Your task to perform on an android device: turn vacation reply on in the gmail app Image 0: 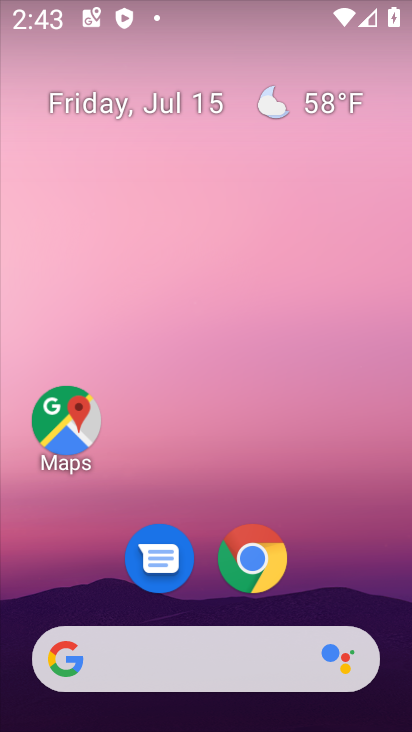
Step 0: drag from (383, 584) to (394, 154)
Your task to perform on an android device: turn vacation reply on in the gmail app Image 1: 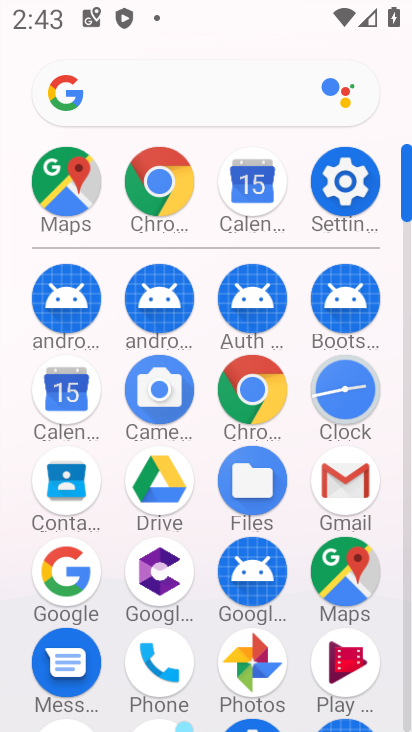
Step 1: click (353, 474)
Your task to perform on an android device: turn vacation reply on in the gmail app Image 2: 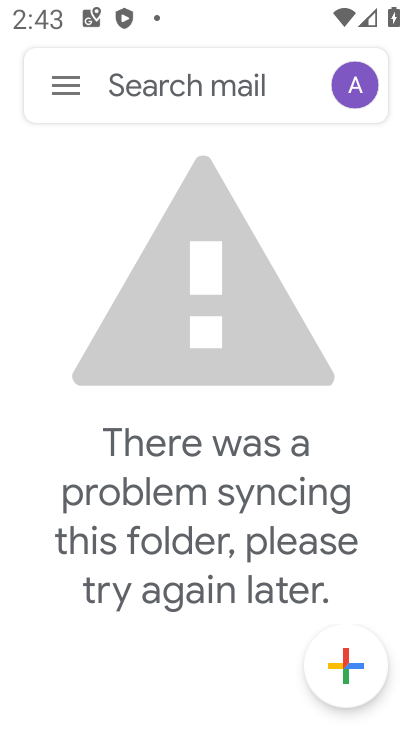
Step 2: click (69, 84)
Your task to perform on an android device: turn vacation reply on in the gmail app Image 3: 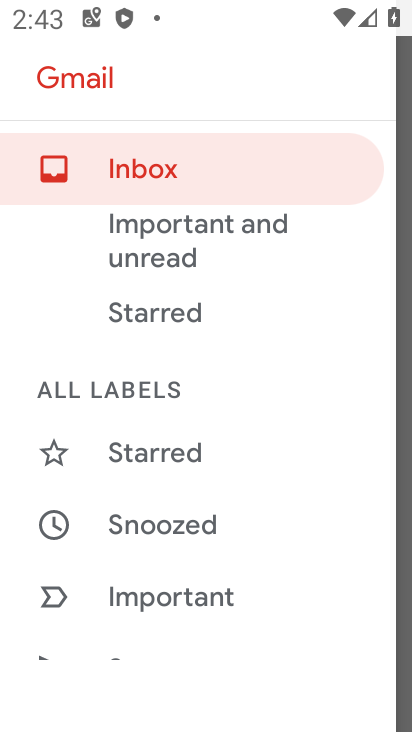
Step 3: drag from (293, 411) to (297, 340)
Your task to perform on an android device: turn vacation reply on in the gmail app Image 4: 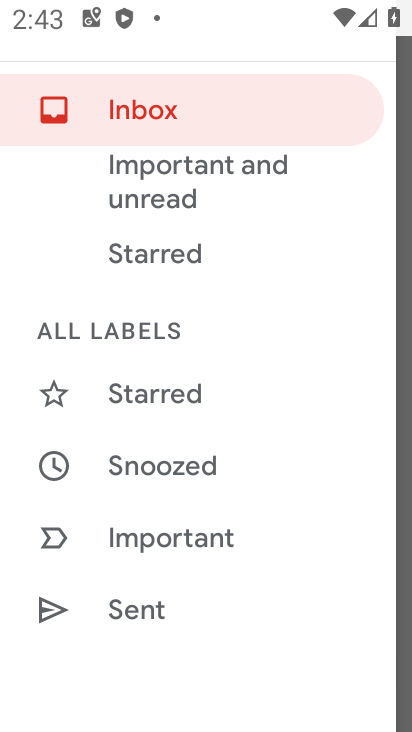
Step 4: drag from (330, 523) to (325, 414)
Your task to perform on an android device: turn vacation reply on in the gmail app Image 5: 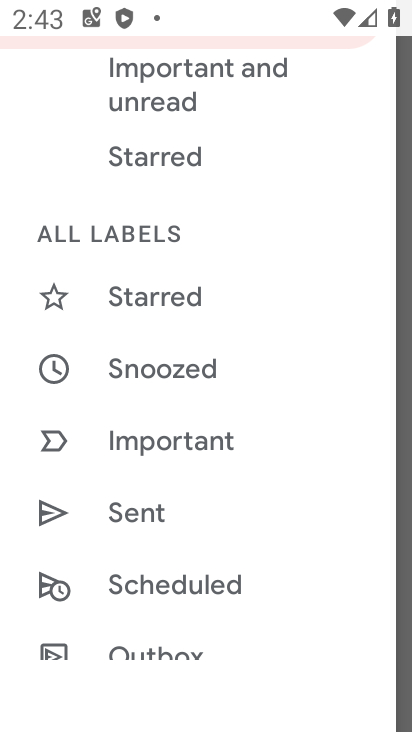
Step 5: drag from (327, 529) to (323, 454)
Your task to perform on an android device: turn vacation reply on in the gmail app Image 6: 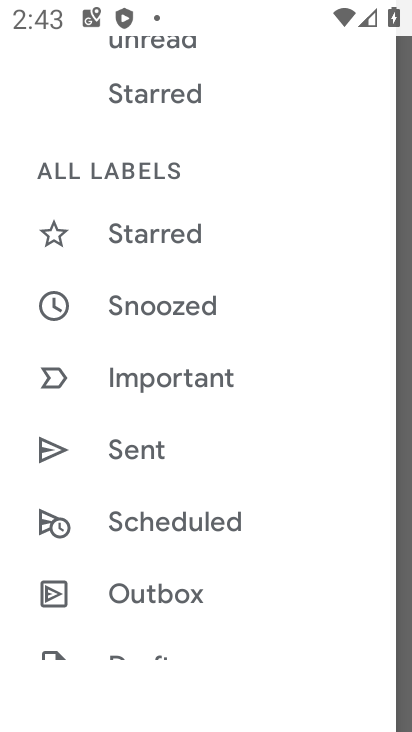
Step 6: drag from (319, 536) to (322, 460)
Your task to perform on an android device: turn vacation reply on in the gmail app Image 7: 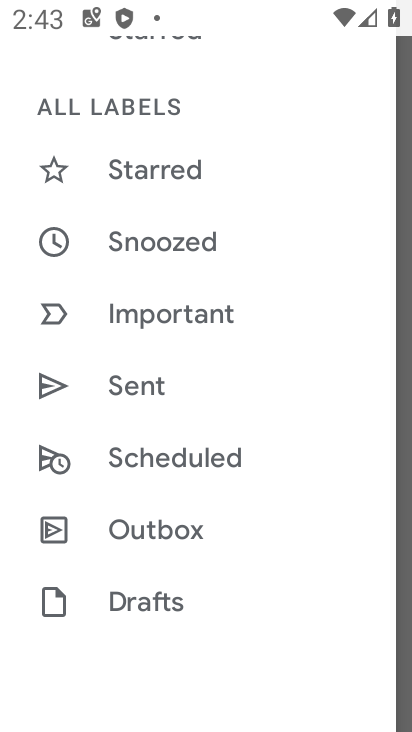
Step 7: drag from (309, 549) to (306, 455)
Your task to perform on an android device: turn vacation reply on in the gmail app Image 8: 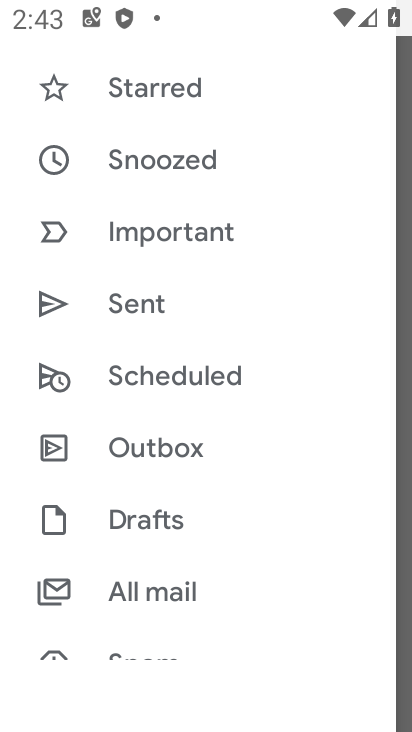
Step 8: drag from (286, 572) to (282, 457)
Your task to perform on an android device: turn vacation reply on in the gmail app Image 9: 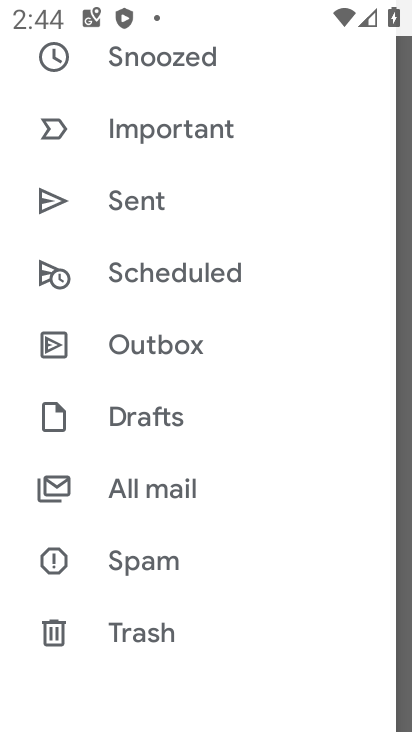
Step 9: drag from (290, 580) to (305, 183)
Your task to perform on an android device: turn vacation reply on in the gmail app Image 10: 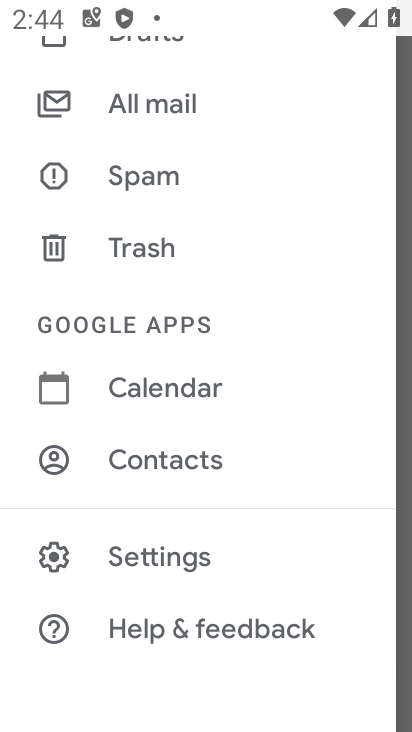
Step 10: click (273, 548)
Your task to perform on an android device: turn vacation reply on in the gmail app Image 11: 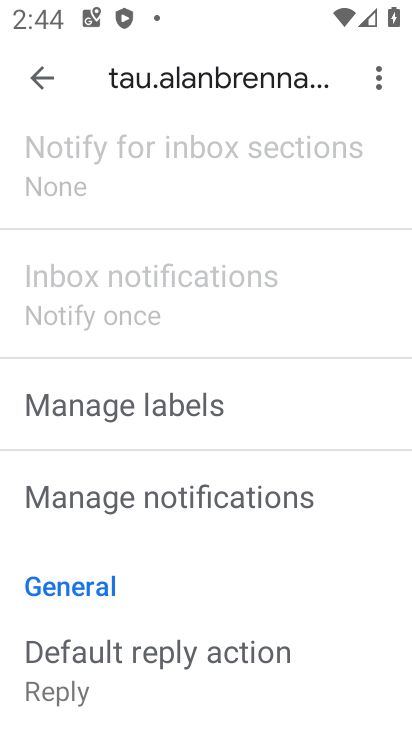
Step 11: drag from (298, 577) to (303, 481)
Your task to perform on an android device: turn vacation reply on in the gmail app Image 12: 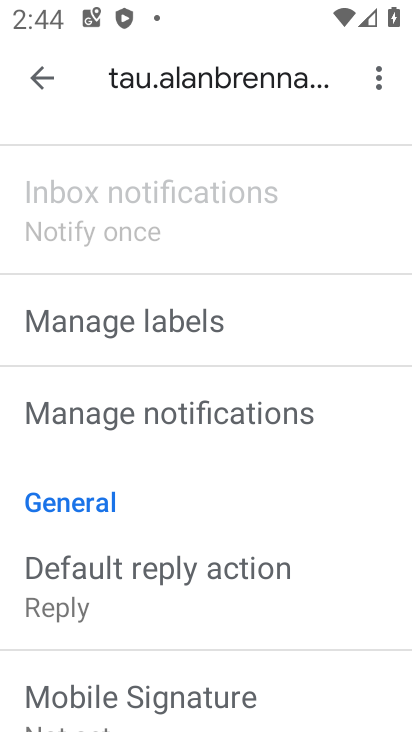
Step 12: drag from (331, 549) to (327, 482)
Your task to perform on an android device: turn vacation reply on in the gmail app Image 13: 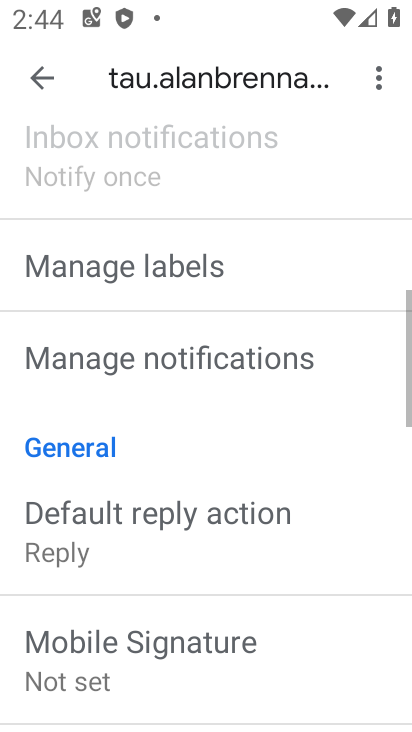
Step 13: drag from (317, 577) to (323, 473)
Your task to perform on an android device: turn vacation reply on in the gmail app Image 14: 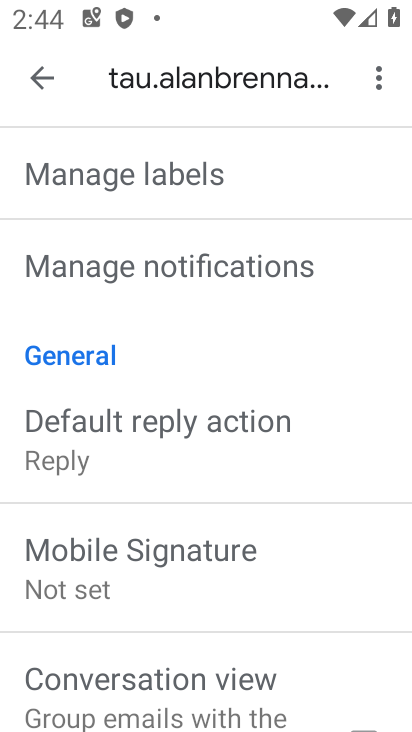
Step 14: drag from (330, 540) to (338, 450)
Your task to perform on an android device: turn vacation reply on in the gmail app Image 15: 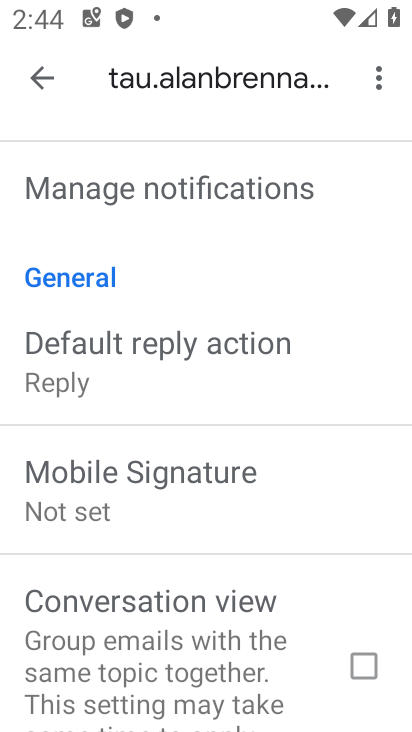
Step 15: drag from (319, 543) to (317, 443)
Your task to perform on an android device: turn vacation reply on in the gmail app Image 16: 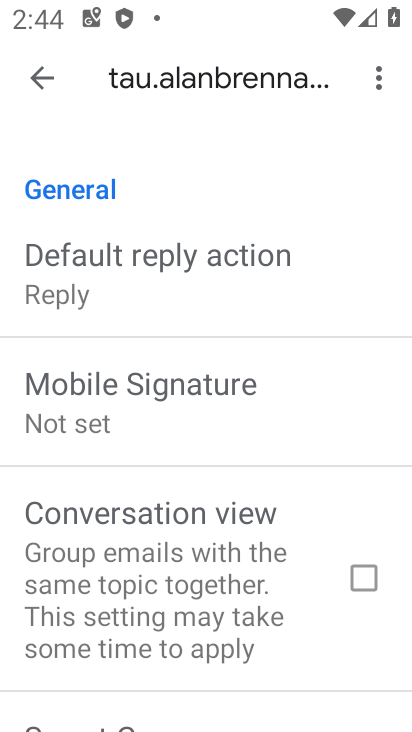
Step 16: drag from (295, 564) to (301, 440)
Your task to perform on an android device: turn vacation reply on in the gmail app Image 17: 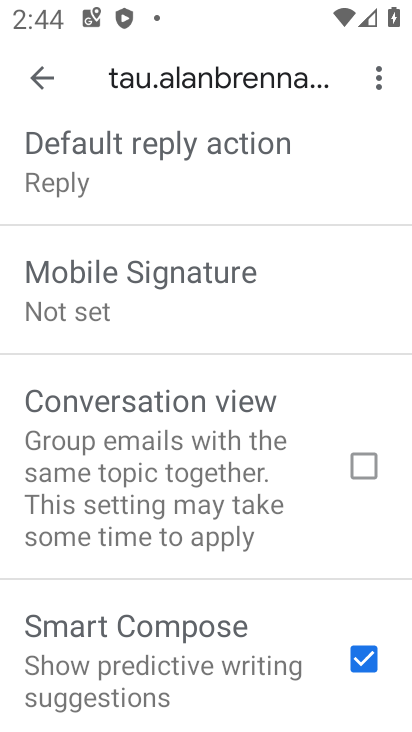
Step 17: drag from (290, 580) to (296, 442)
Your task to perform on an android device: turn vacation reply on in the gmail app Image 18: 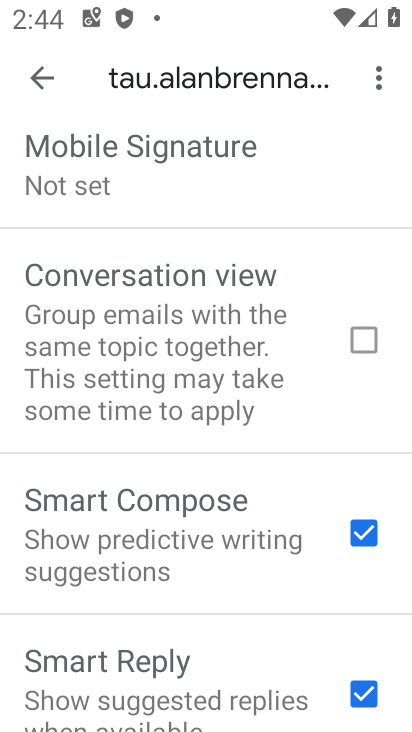
Step 18: drag from (274, 601) to (273, 471)
Your task to perform on an android device: turn vacation reply on in the gmail app Image 19: 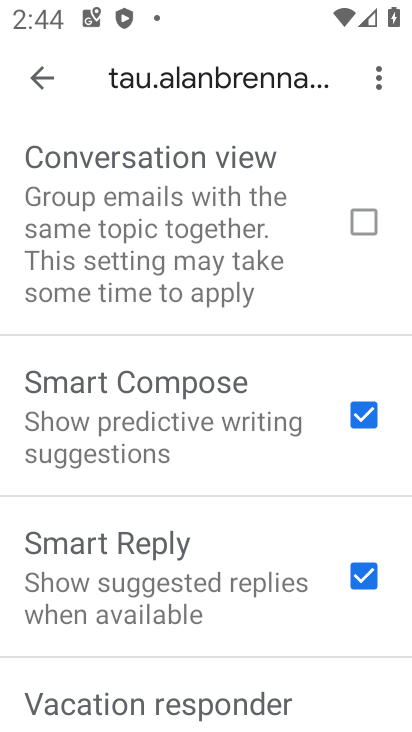
Step 19: drag from (252, 644) to (251, 485)
Your task to perform on an android device: turn vacation reply on in the gmail app Image 20: 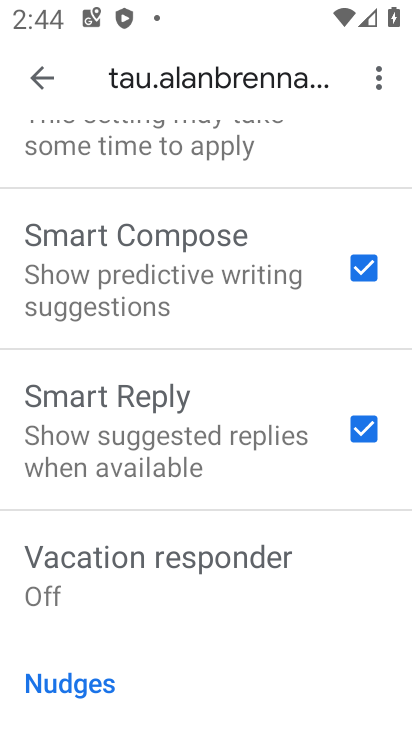
Step 20: drag from (237, 644) to (238, 465)
Your task to perform on an android device: turn vacation reply on in the gmail app Image 21: 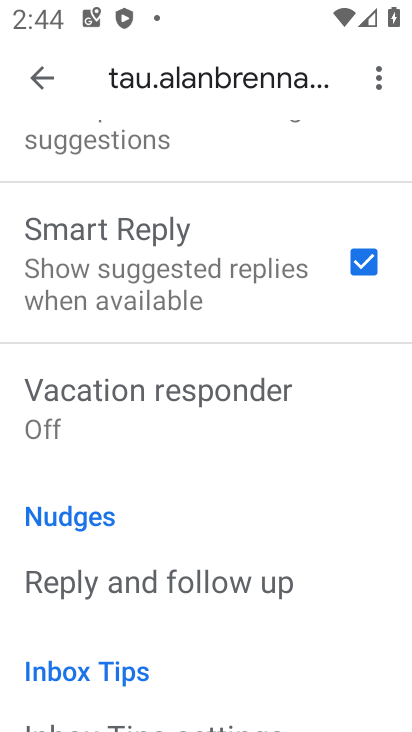
Step 21: click (214, 411)
Your task to perform on an android device: turn vacation reply on in the gmail app Image 22: 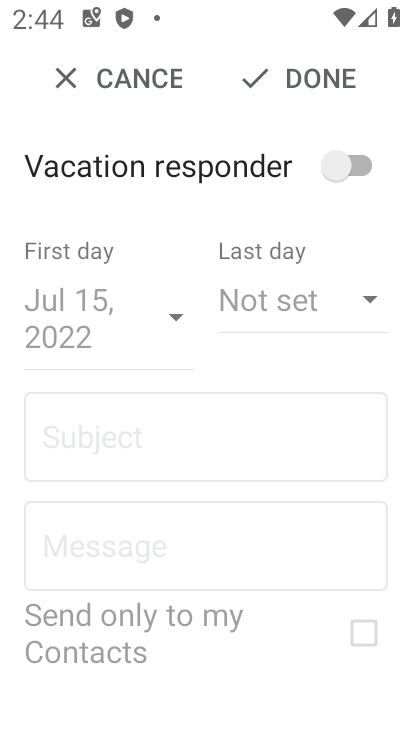
Step 22: click (355, 168)
Your task to perform on an android device: turn vacation reply on in the gmail app Image 23: 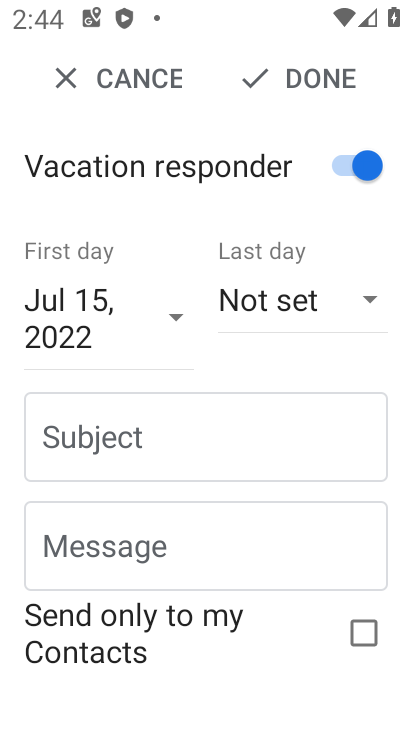
Step 23: task complete